Your task to perform on an android device: choose inbox layout in the gmail app Image 0: 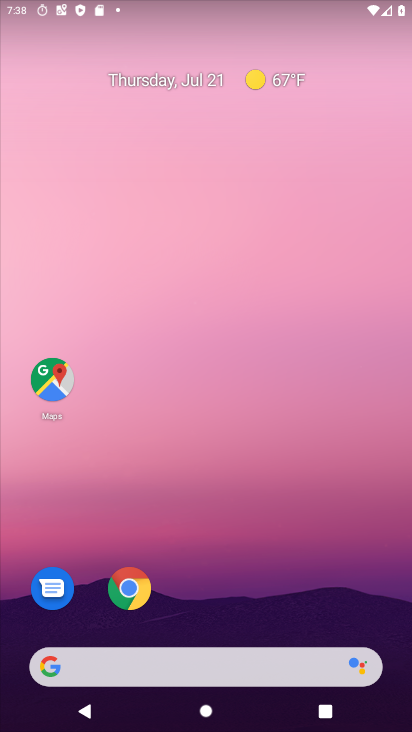
Step 0: drag from (218, 651) to (237, 214)
Your task to perform on an android device: choose inbox layout in the gmail app Image 1: 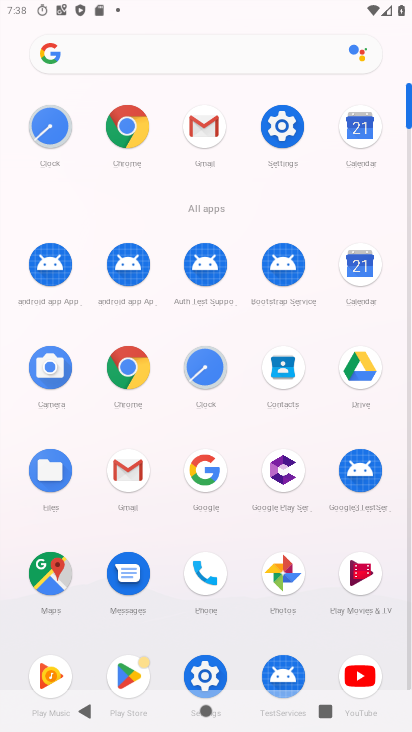
Step 1: click (206, 136)
Your task to perform on an android device: choose inbox layout in the gmail app Image 2: 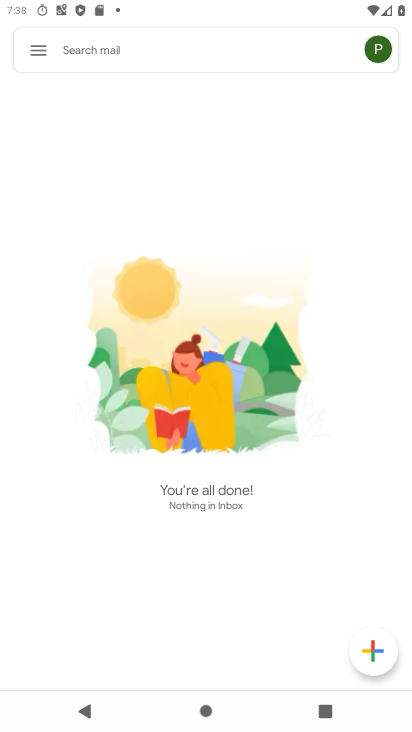
Step 2: click (48, 57)
Your task to perform on an android device: choose inbox layout in the gmail app Image 3: 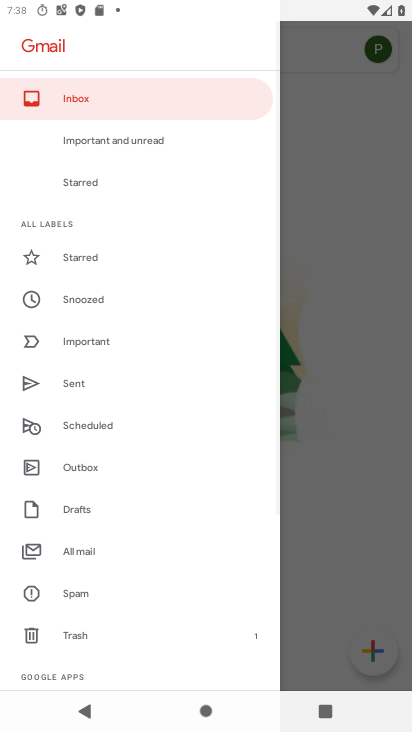
Step 3: drag from (87, 669) to (105, 379)
Your task to perform on an android device: choose inbox layout in the gmail app Image 4: 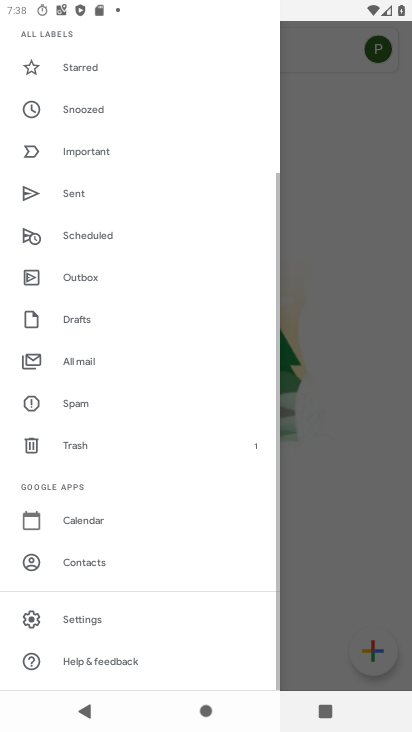
Step 4: click (98, 622)
Your task to perform on an android device: choose inbox layout in the gmail app Image 5: 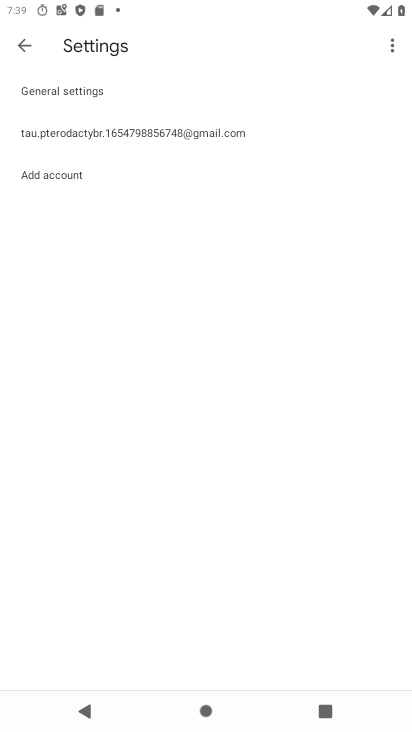
Step 5: click (87, 136)
Your task to perform on an android device: choose inbox layout in the gmail app Image 6: 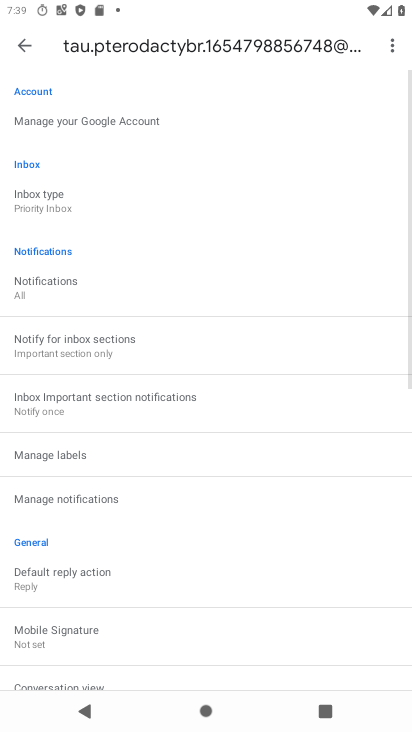
Step 6: click (65, 197)
Your task to perform on an android device: choose inbox layout in the gmail app Image 7: 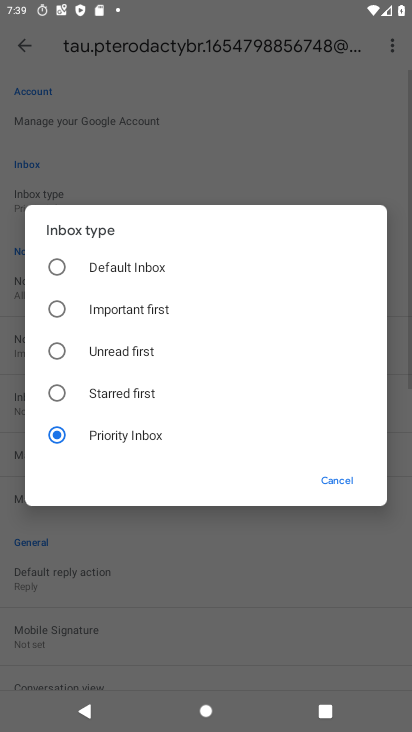
Step 7: click (130, 305)
Your task to perform on an android device: choose inbox layout in the gmail app Image 8: 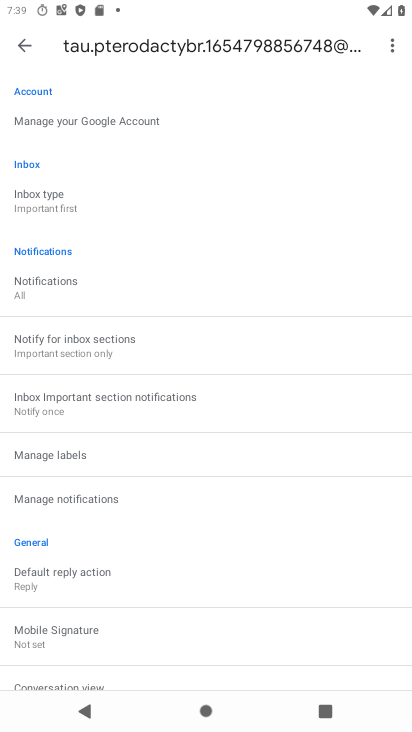
Step 8: task complete